Your task to perform on an android device: Open calendar and show me the second week of next month Image 0: 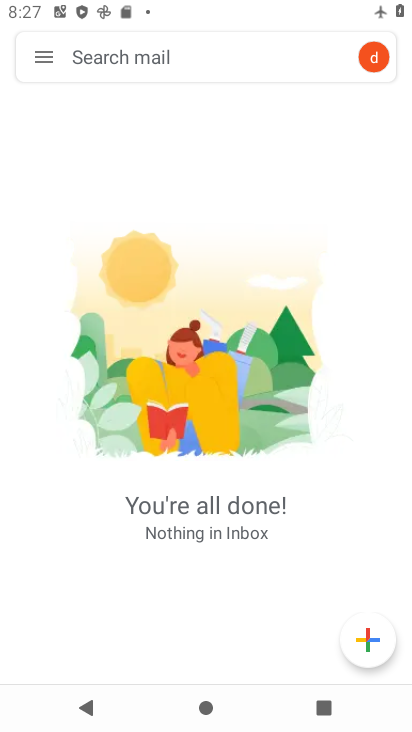
Step 0: press home button
Your task to perform on an android device: Open calendar and show me the second week of next month Image 1: 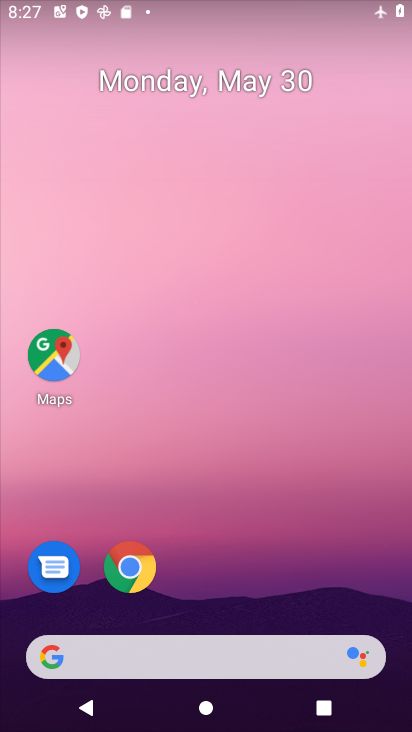
Step 1: drag from (327, 584) to (223, 20)
Your task to perform on an android device: Open calendar and show me the second week of next month Image 2: 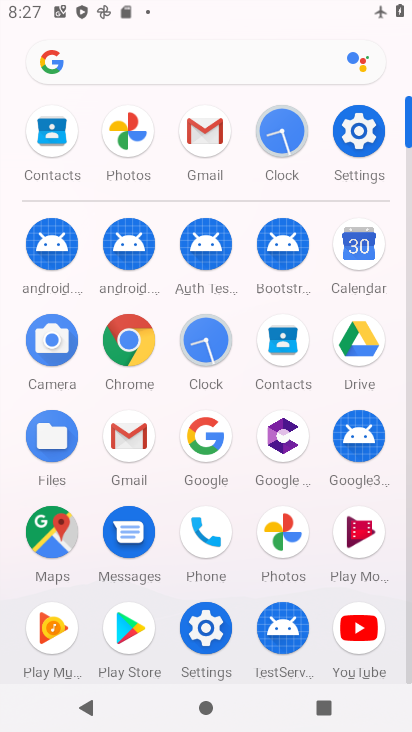
Step 2: click (369, 255)
Your task to perform on an android device: Open calendar and show me the second week of next month Image 3: 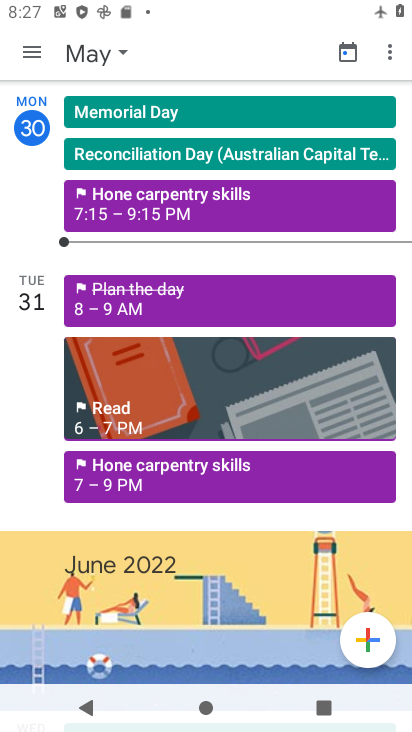
Step 3: task complete